Your task to perform on an android device: Go to wifi settings Image 0: 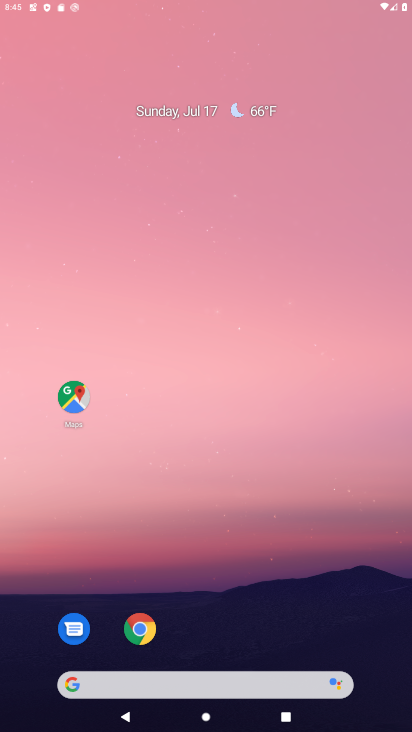
Step 0: press home button
Your task to perform on an android device: Go to wifi settings Image 1: 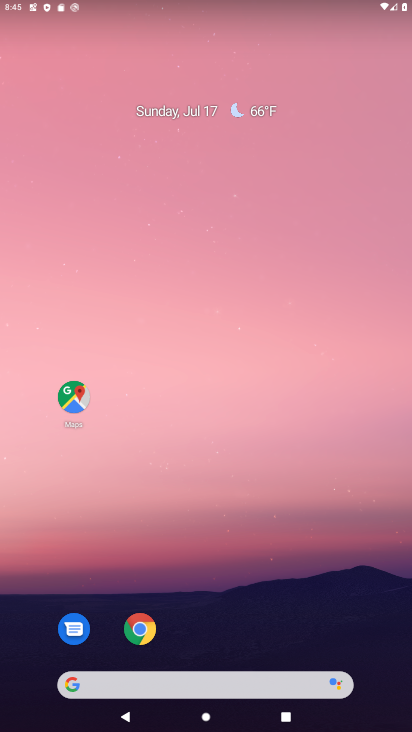
Step 1: drag from (229, 645) to (171, 67)
Your task to perform on an android device: Go to wifi settings Image 2: 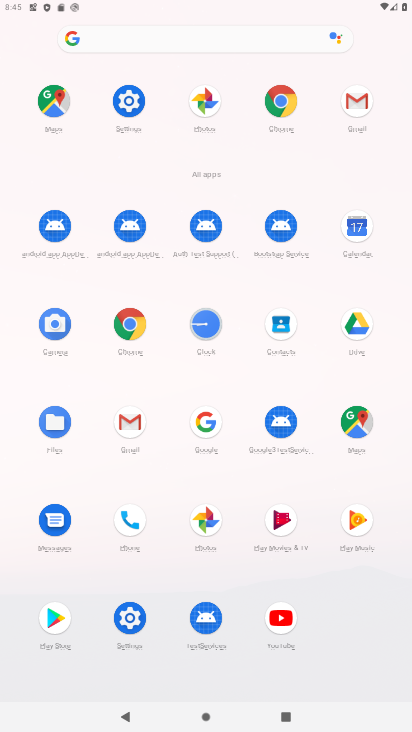
Step 2: click (126, 97)
Your task to perform on an android device: Go to wifi settings Image 3: 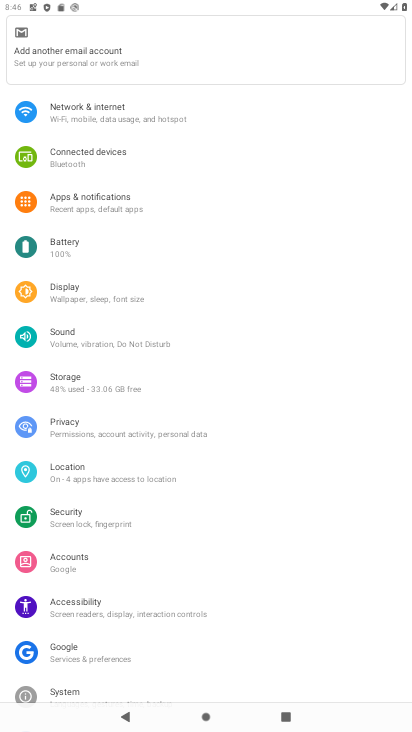
Step 3: click (106, 109)
Your task to perform on an android device: Go to wifi settings Image 4: 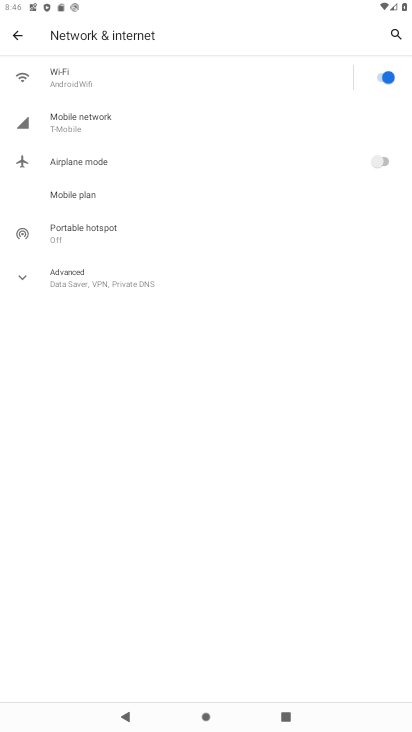
Step 4: click (80, 76)
Your task to perform on an android device: Go to wifi settings Image 5: 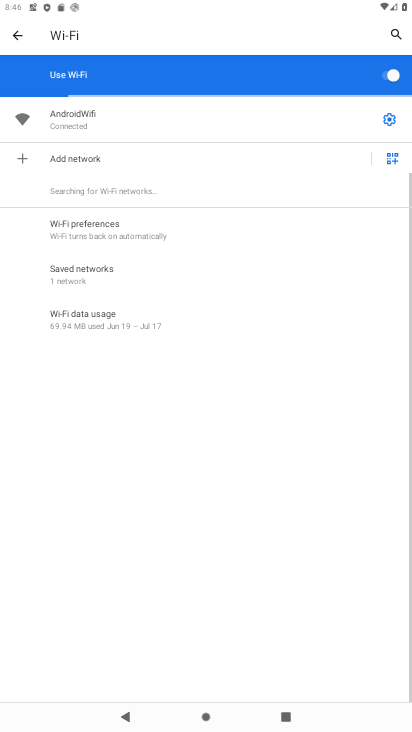
Step 5: task complete